Your task to perform on an android device: Find coffee shops on Maps Image 0: 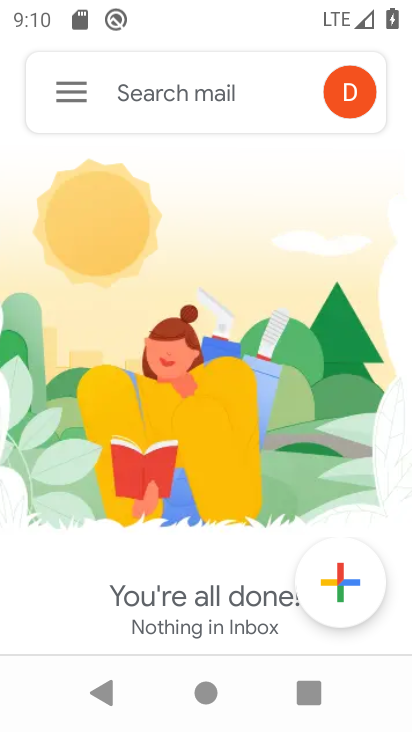
Step 0: press home button
Your task to perform on an android device: Find coffee shops on Maps Image 1: 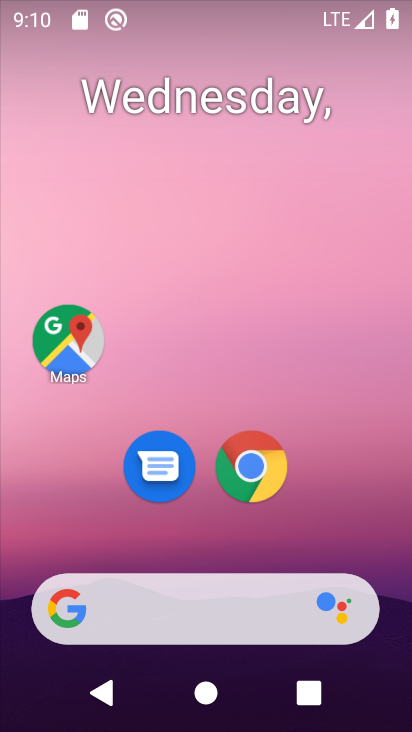
Step 1: drag from (225, 722) to (223, 141)
Your task to perform on an android device: Find coffee shops on Maps Image 2: 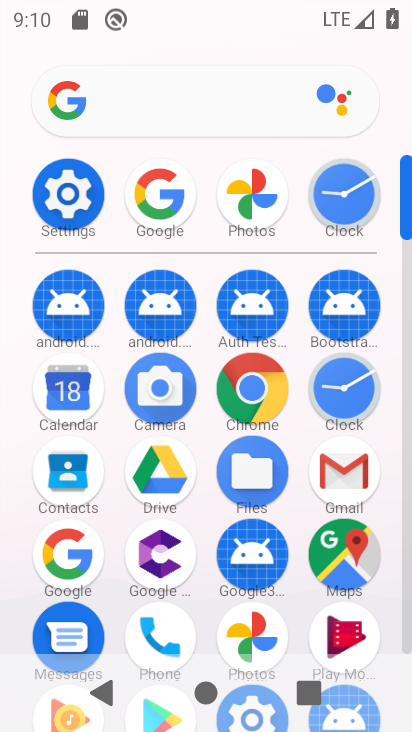
Step 2: click (337, 565)
Your task to perform on an android device: Find coffee shops on Maps Image 3: 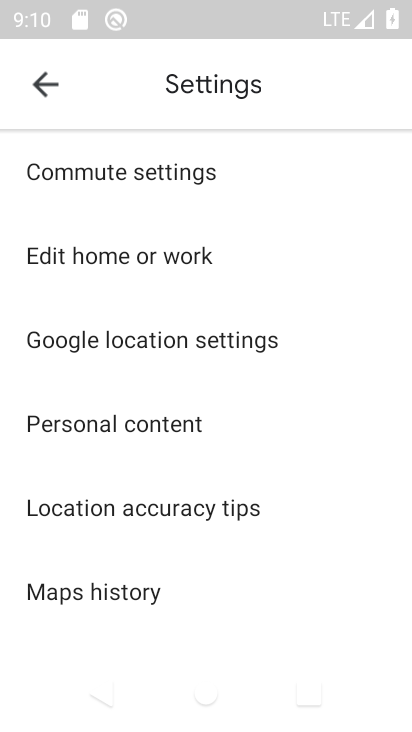
Step 3: click (39, 82)
Your task to perform on an android device: Find coffee shops on Maps Image 4: 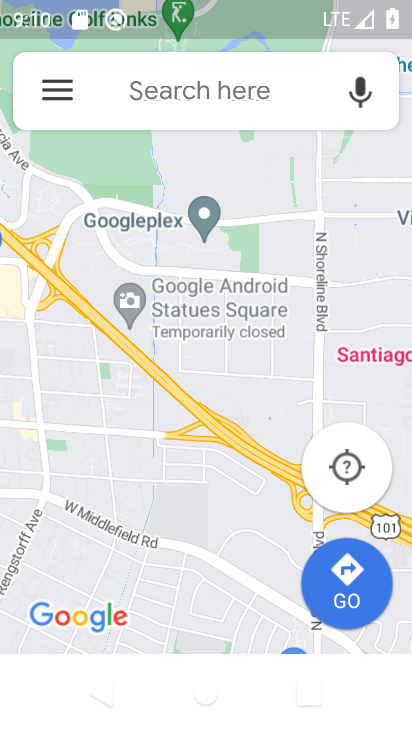
Step 4: click (165, 96)
Your task to perform on an android device: Find coffee shops on Maps Image 5: 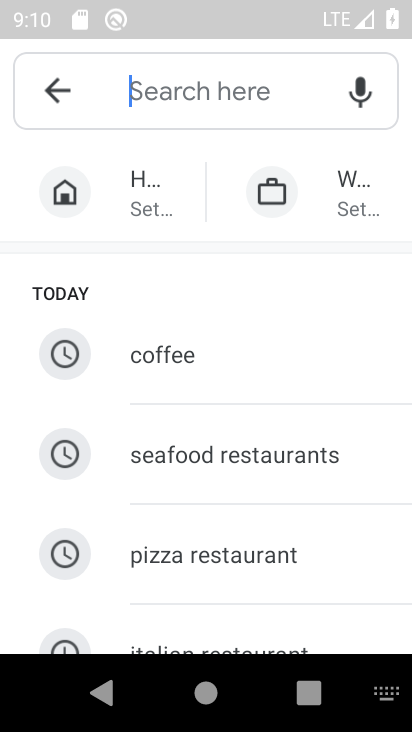
Step 5: type "coffe shops"
Your task to perform on an android device: Find coffee shops on Maps Image 6: 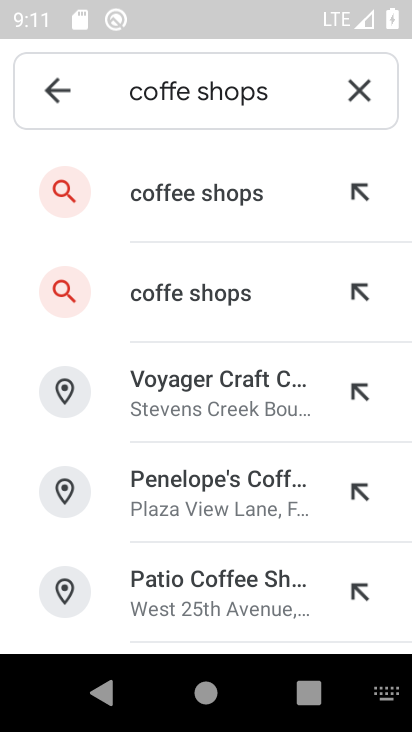
Step 6: click (195, 186)
Your task to perform on an android device: Find coffee shops on Maps Image 7: 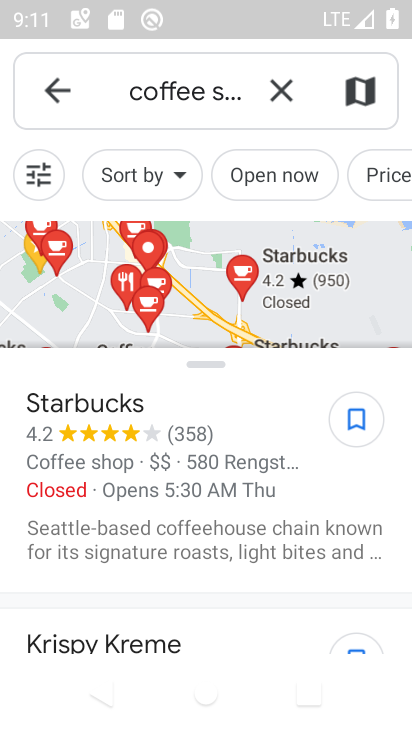
Step 7: task complete